Your task to perform on an android device: Go to Google maps Image 0: 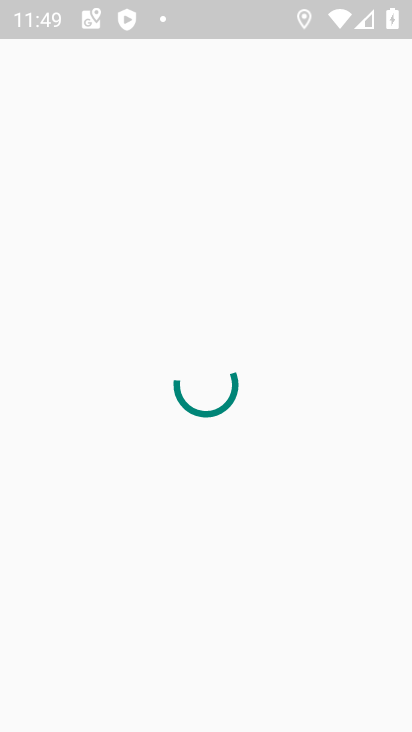
Step 0: press home button
Your task to perform on an android device: Go to Google maps Image 1: 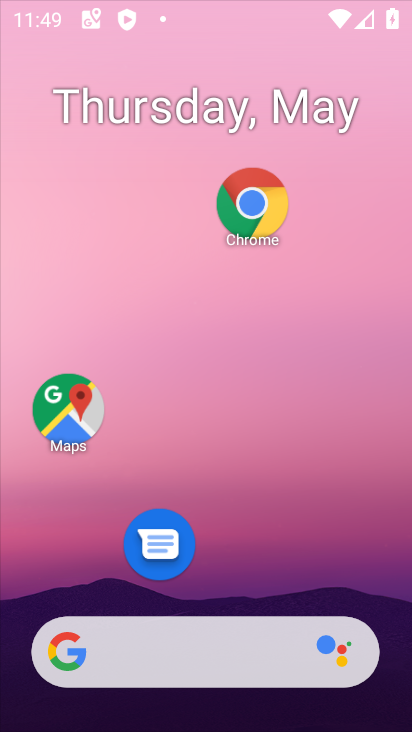
Step 1: drag from (232, 643) to (236, 133)
Your task to perform on an android device: Go to Google maps Image 2: 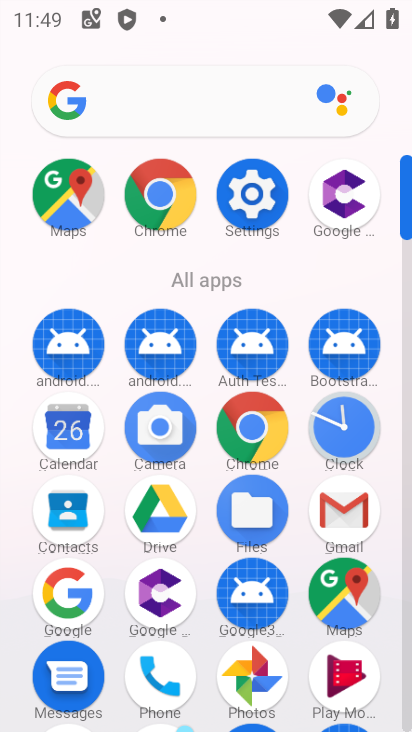
Step 2: click (327, 590)
Your task to perform on an android device: Go to Google maps Image 3: 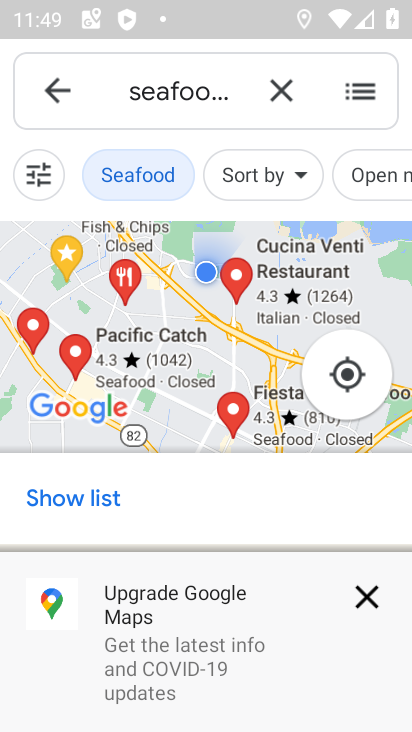
Step 3: click (364, 594)
Your task to perform on an android device: Go to Google maps Image 4: 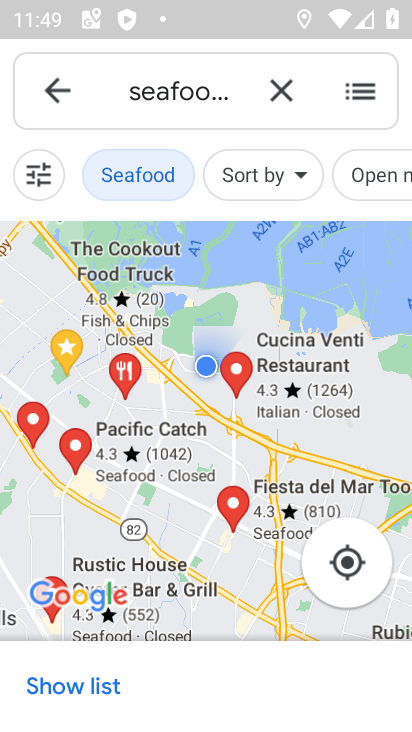
Step 4: click (279, 97)
Your task to perform on an android device: Go to Google maps Image 5: 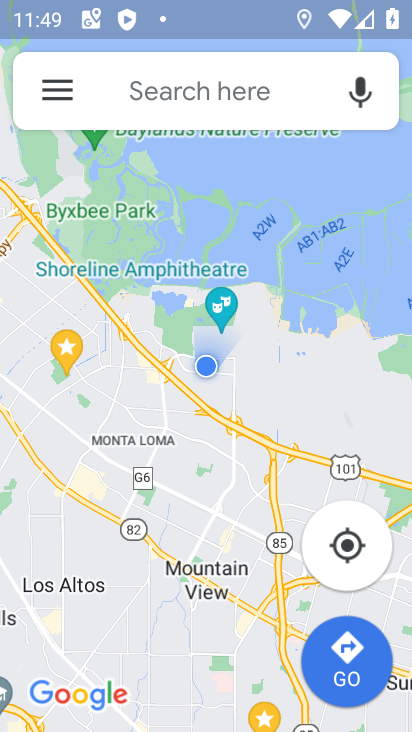
Step 5: task complete